Your task to perform on an android device: turn off location Image 0: 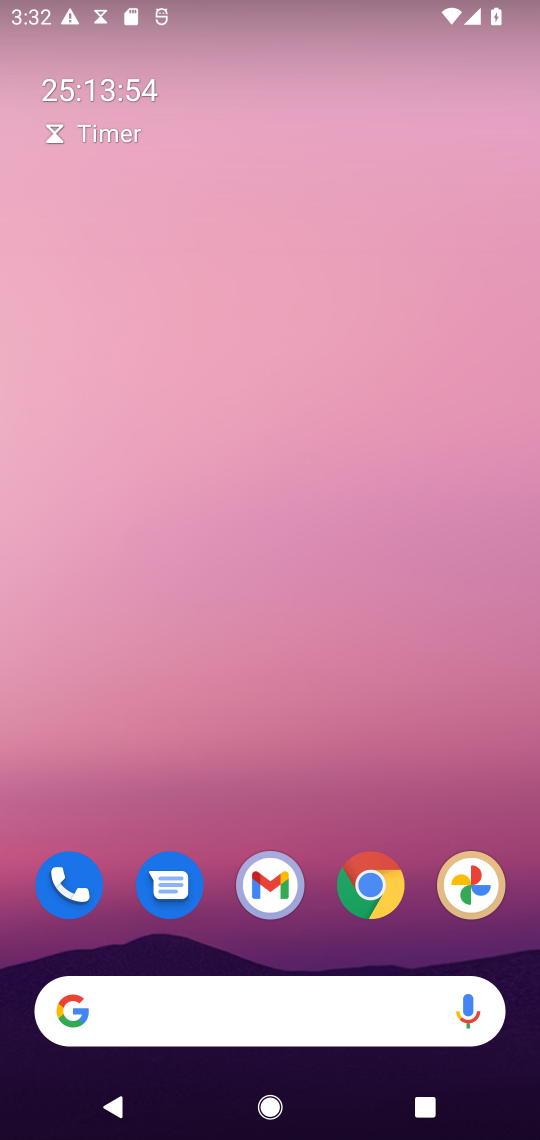
Step 0: drag from (226, 928) to (281, 108)
Your task to perform on an android device: turn off location Image 1: 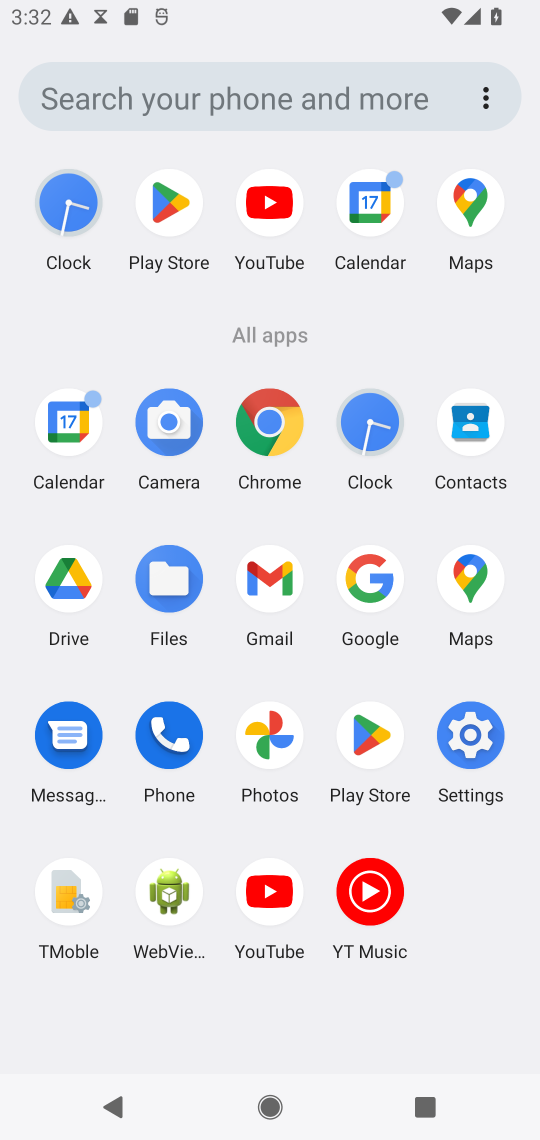
Step 1: click (469, 737)
Your task to perform on an android device: turn off location Image 2: 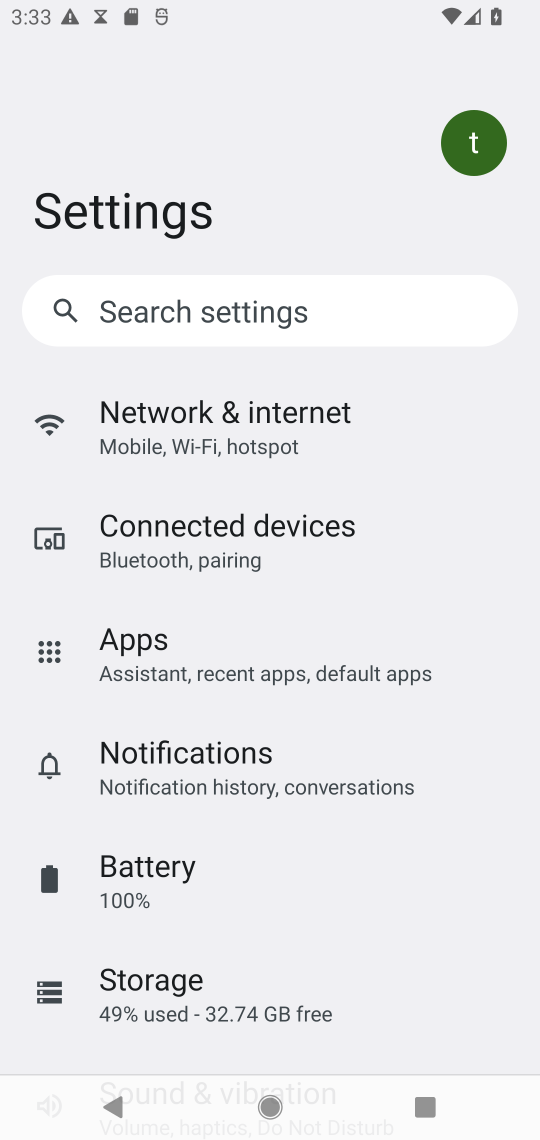
Step 2: drag from (279, 953) to (425, 422)
Your task to perform on an android device: turn off location Image 3: 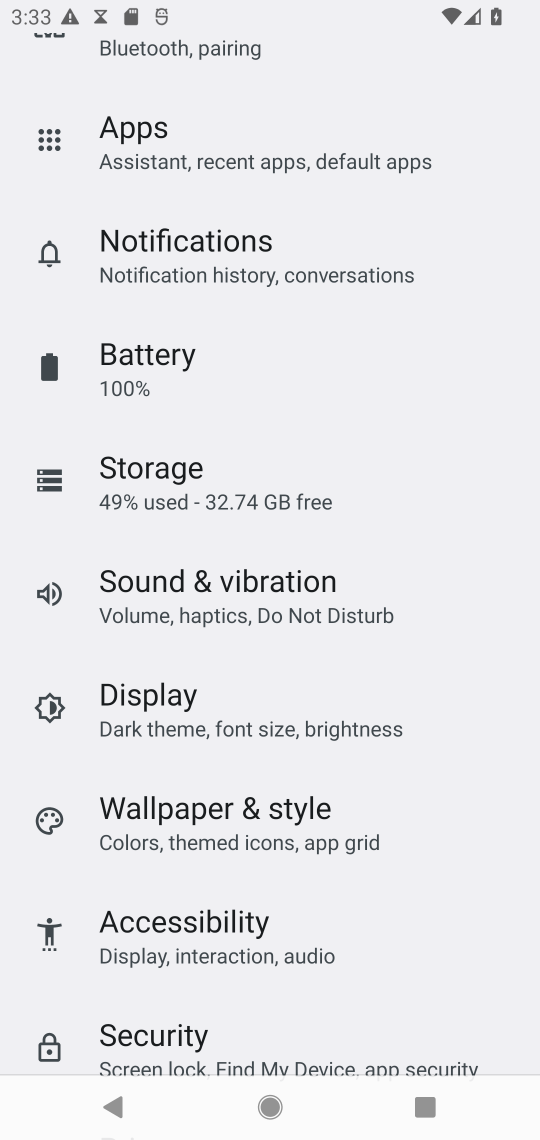
Step 3: drag from (201, 1005) to (313, 298)
Your task to perform on an android device: turn off location Image 4: 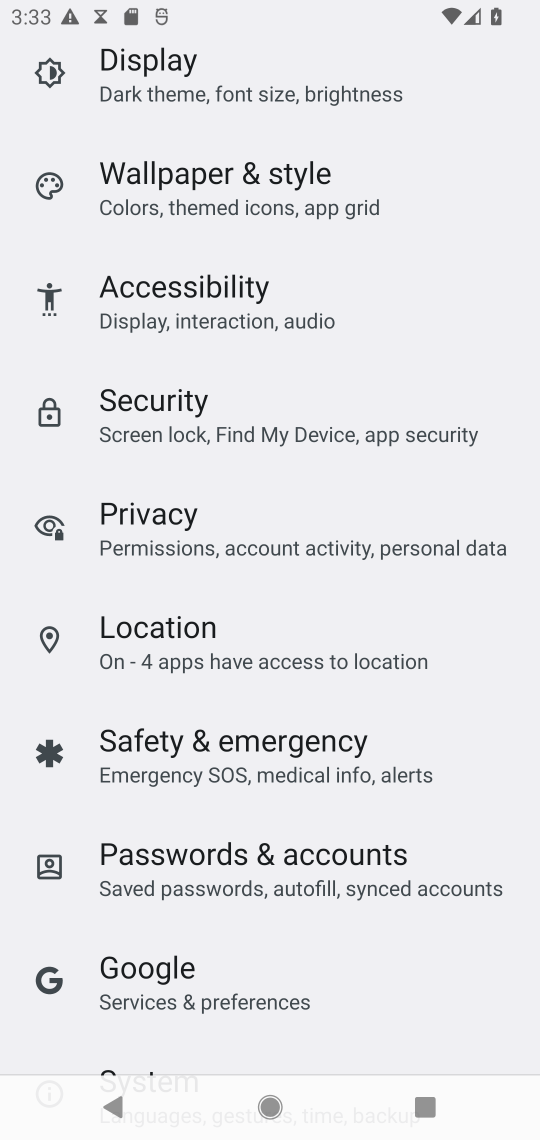
Step 4: click (160, 647)
Your task to perform on an android device: turn off location Image 5: 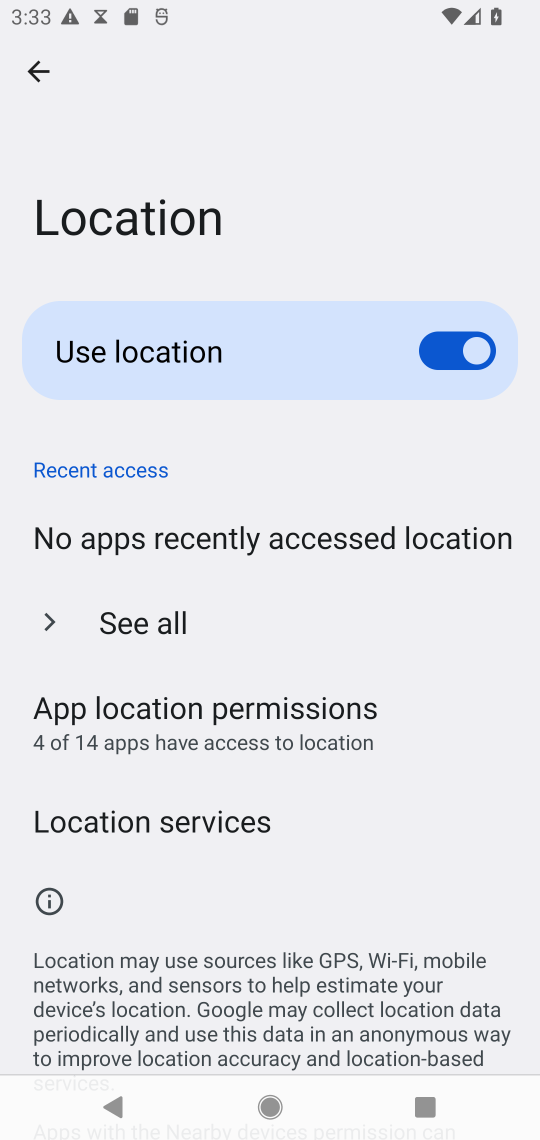
Step 5: click (439, 346)
Your task to perform on an android device: turn off location Image 6: 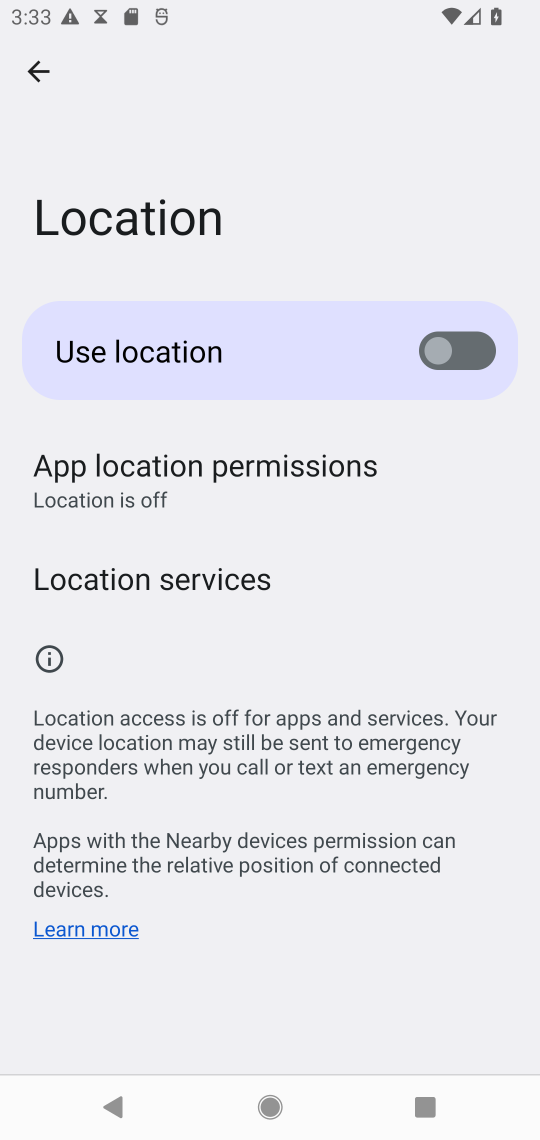
Step 6: task complete